Your task to perform on an android device: Open the Play Movies app and select the watchlist tab. Image 0: 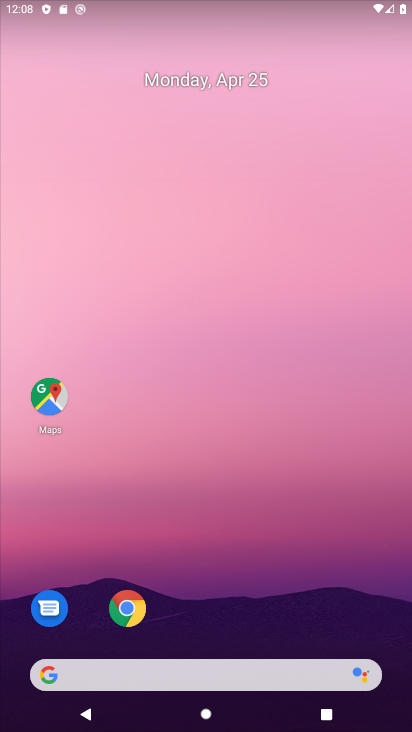
Step 0: drag from (191, 655) to (306, 21)
Your task to perform on an android device: Open the Play Movies app and select the watchlist tab. Image 1: 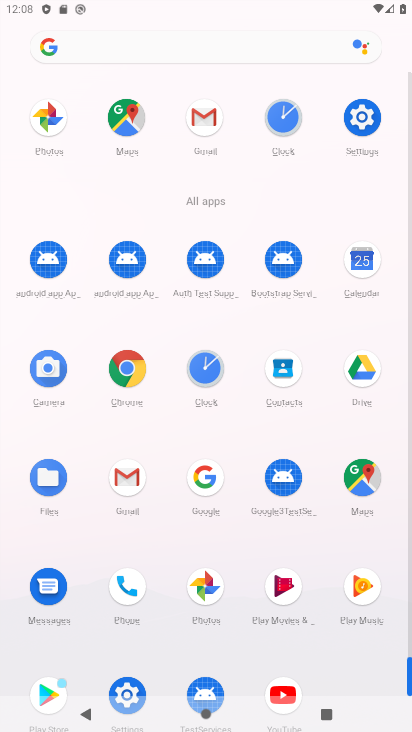
Step 1: click (280, 590)
Your task to perform on an android device: Open the Play Movies app and select the watchlist tab. Image 2: 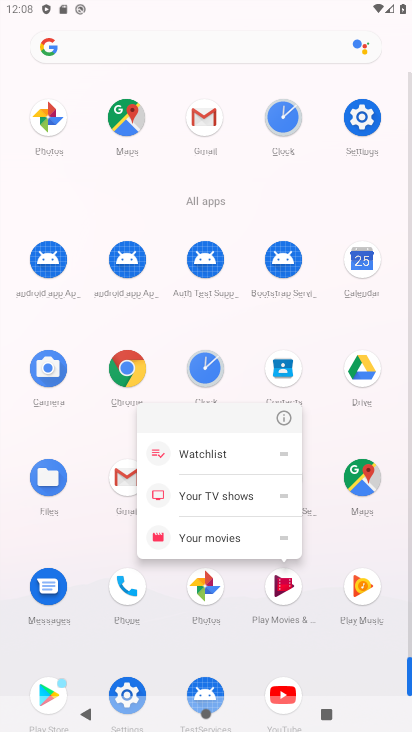
Step 2: click (282, 593)
Your task to perform on an android device: Open the Play Movies app and select the watchlist tab. Image 3: 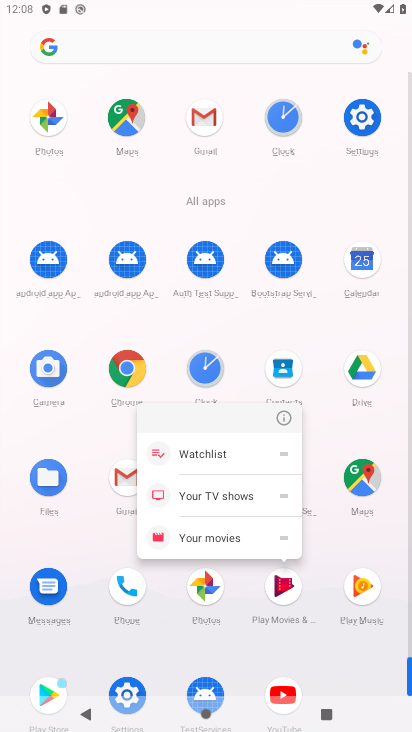
Step 3: click (296, 592)
Your task to perform on an android device: Open the Play Movies app and select the watchlist tab. Image 4: 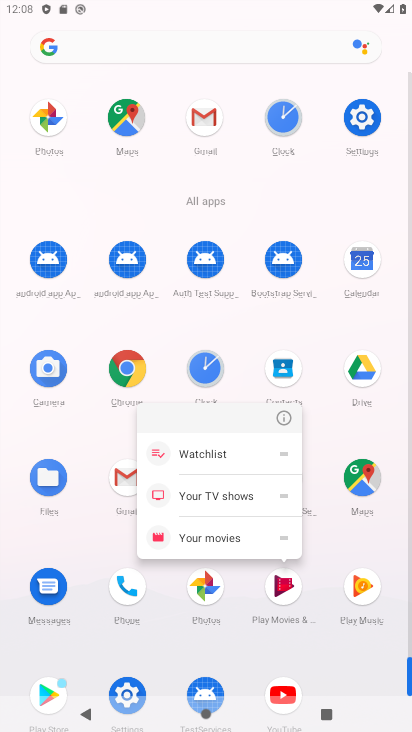
Step 4: click (288, 589)
Your task to perform on an android device: Open the Play Movies app and select the watchlist tab. Image 5: 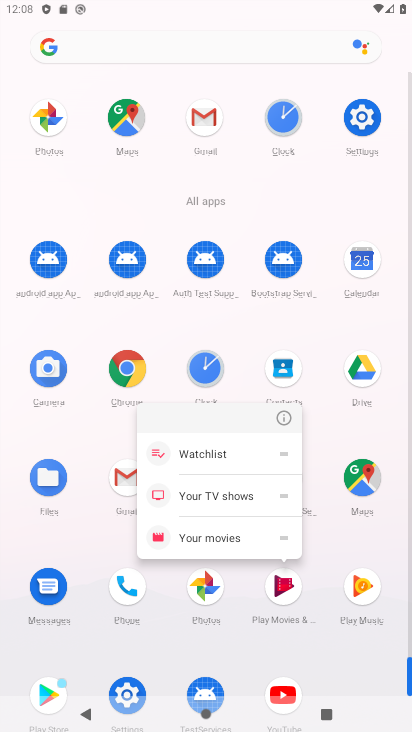
Step 5: click (285, 595)
Your task to perform on an android device: Open the Play Movies app and select the watchlist tab. Image 6: 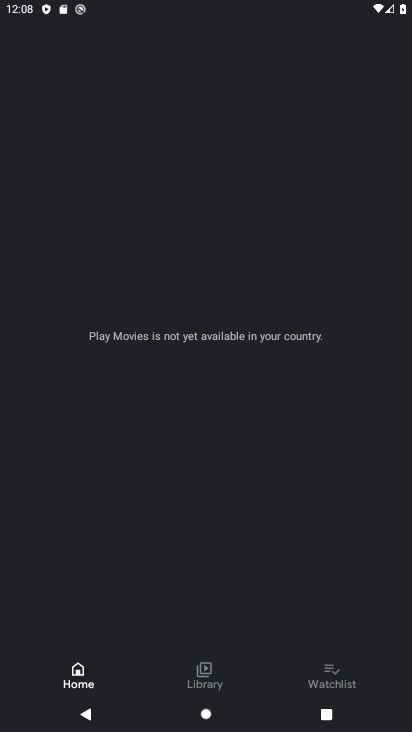
Step 6: click (319, 664)
Your task to perform on an android device: Open the Play Movies app and select the watchlist tab. Image 7: 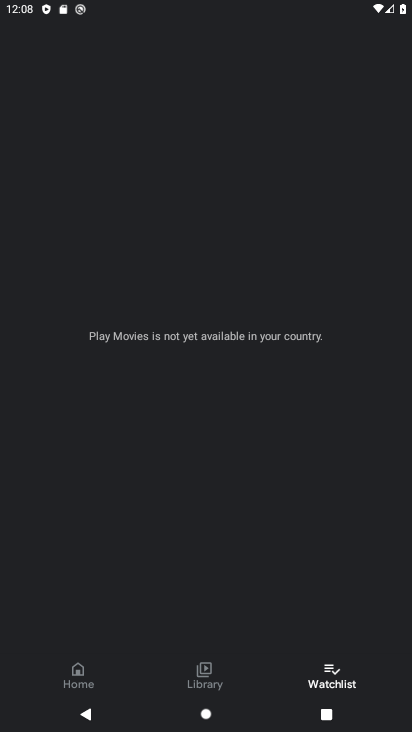
Step 7: task complete